Your task to perform on an android device: delete location history Image 0: 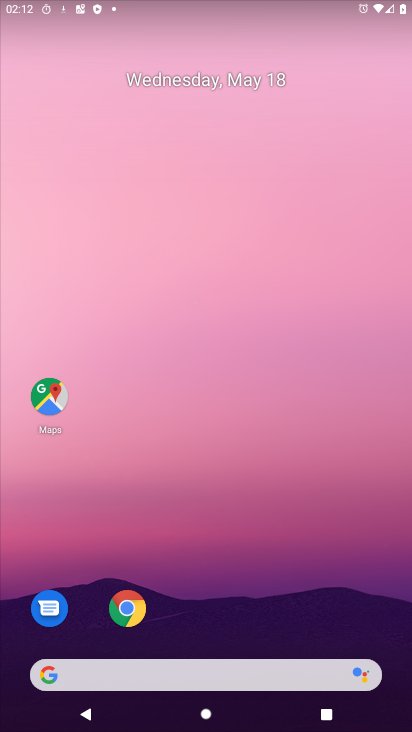
Step 0: press home button
Your task to perform on an android device: delete location history Image 1: 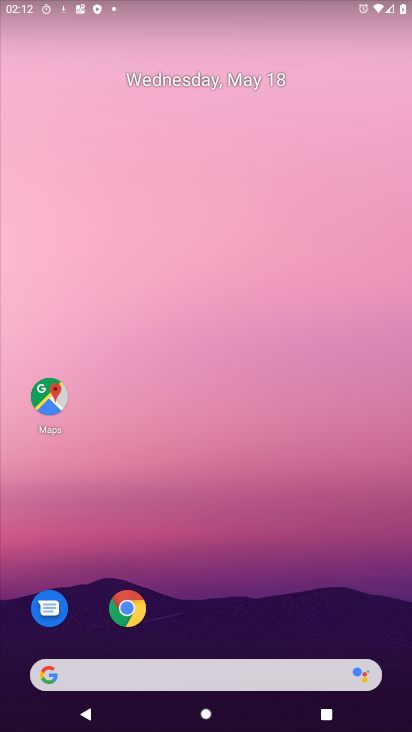
Step 1: drag from (289, 688) to (374, 141)
Your task to perform on an android device: delete location history Image 2: 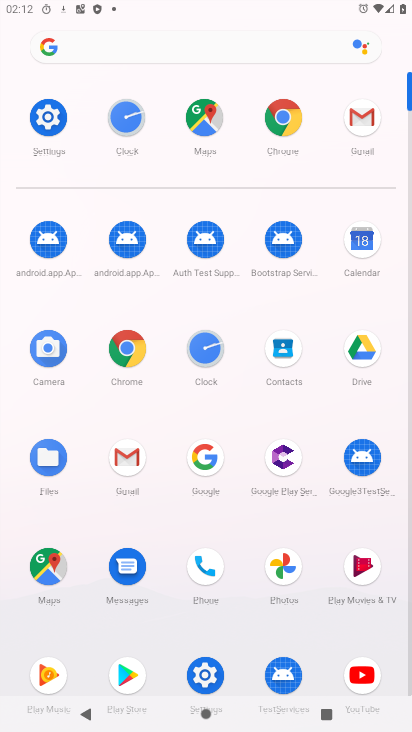
Step 2: click (60, 121)
Your task to perform on an android device: delete location history Image 3: 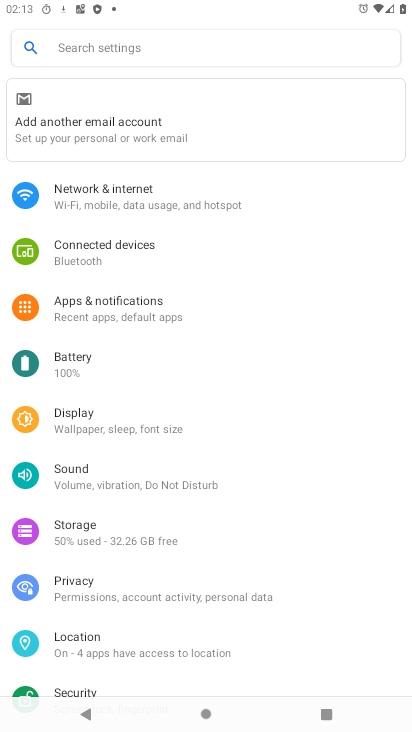
Step 3: click (147, 43)
Your task to perform on an android device: delete location history Image 4: 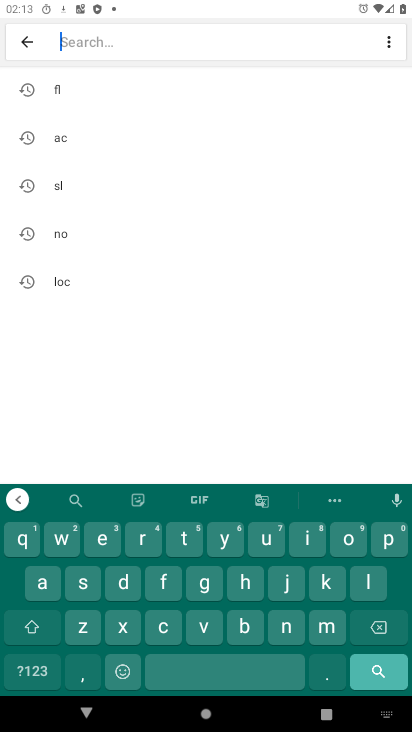
Step 4: click (365, 587)
Your task to perform on an android device: delete location history Image 5: 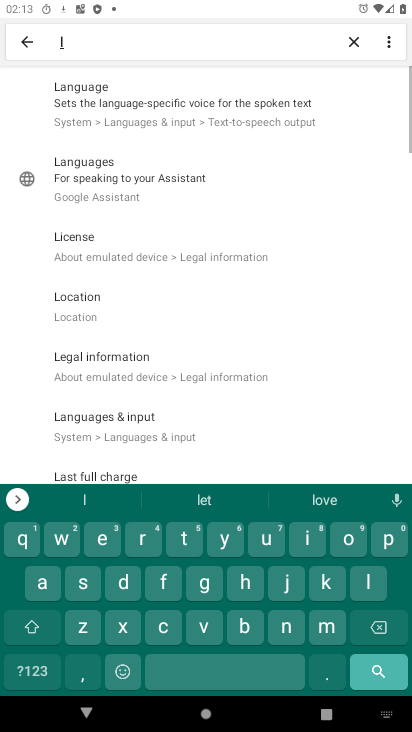
Step 5: click (351, 539)
Your task to perform on an android device: delete location history Image 6: 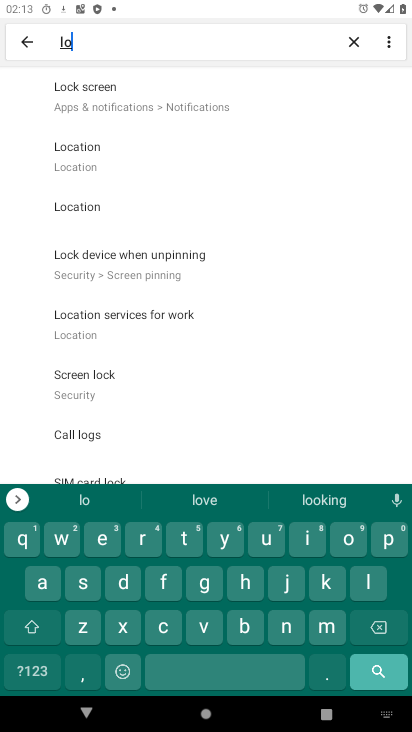
Step 6: click (115, 154)
Your task to perform on an android device: delete location history Image 7: 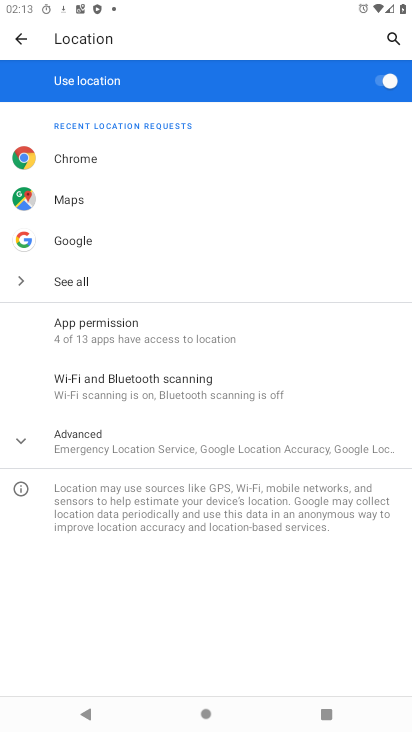
Step 7: click (28, 436)
Your task to perform on an android device: delete location history Image 8: 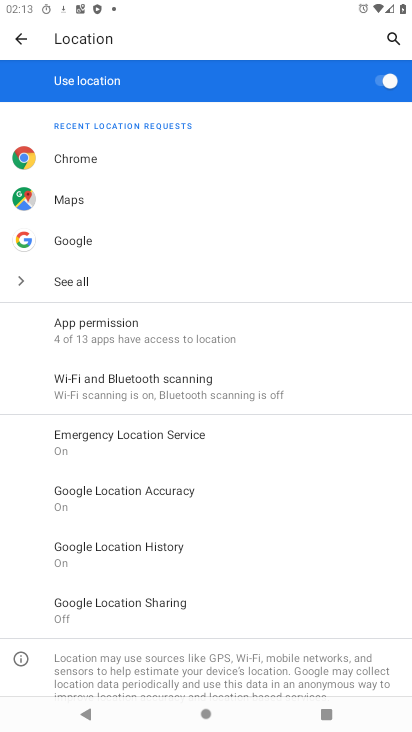
Step 8: click (129, 551)
Your task to perform on an android device: delete location history Image 9: 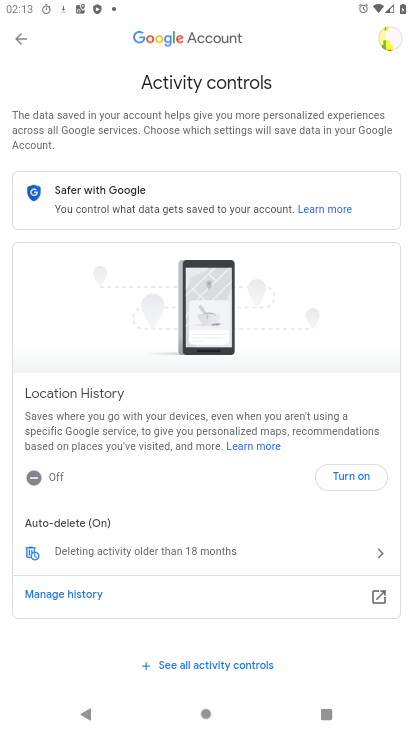
Step 9: task complete